Your task to perform on an android device: star an email in the gmail app Image 0: 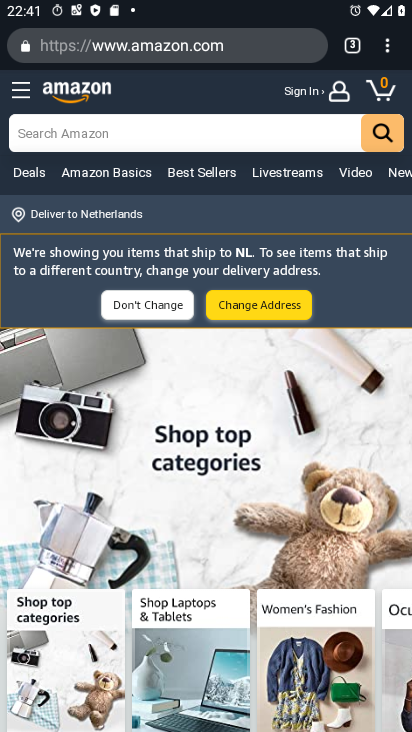
Step 0: press back button
Your task to perform on an android device: star an email in the gmail app Image 1: 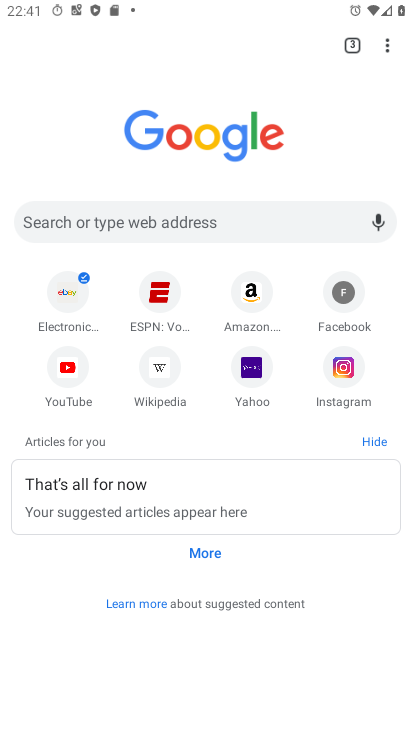
Step 1: press back button
Your task to perform on an android device: star an email in the gmail app Image 2: 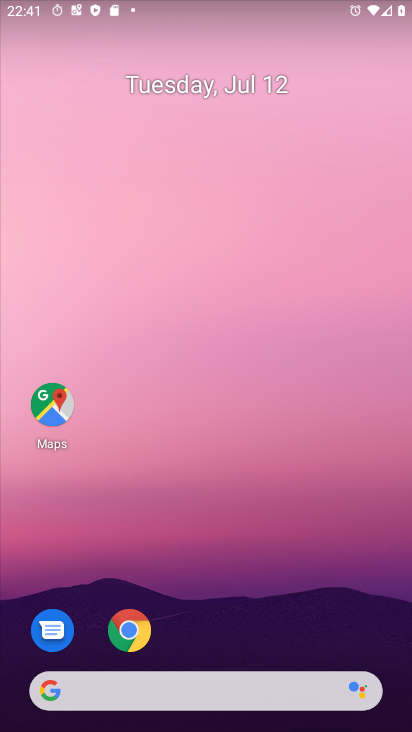
Step 2: drag from (212, 639) to (265, 9)
Your task to perform on an android device: star an email in the gmail app Image 3: 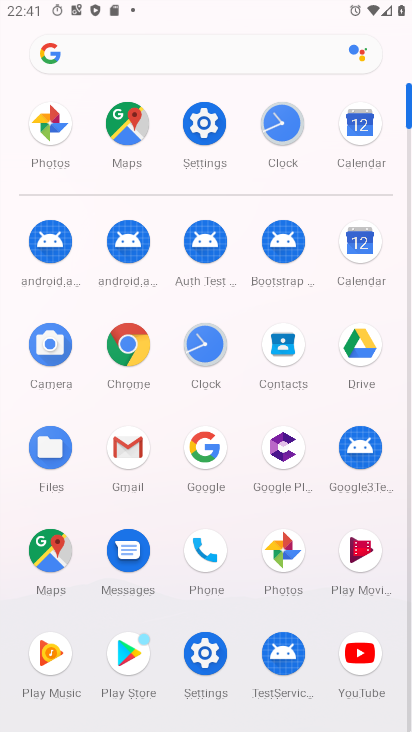
Step 3: click (216, 345)
Your task to perform on an android device: star an email in the gmail app Image 4: 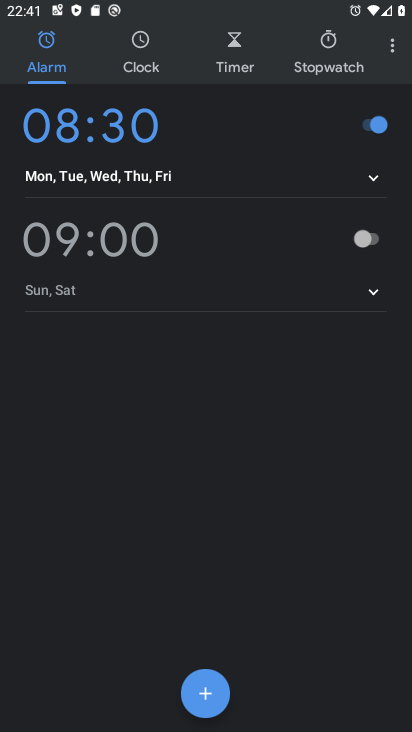
Step 4: press back button
Your task to perform on an android device: star an email in the gmail app Image 5: 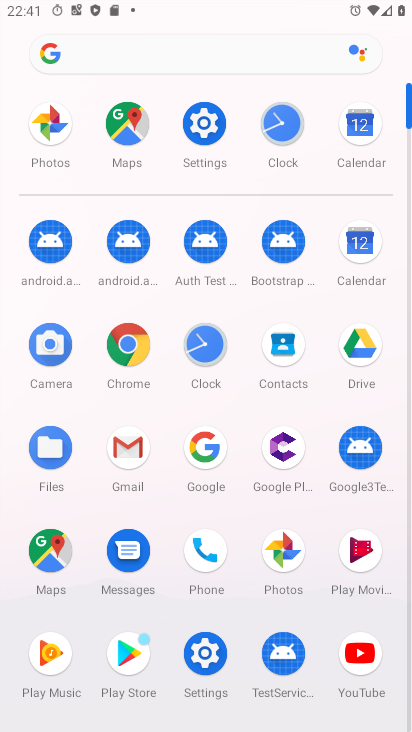
Step 5: click (138, 442)
Your task to perform on an android device: star an email in the gmail app Image 6: 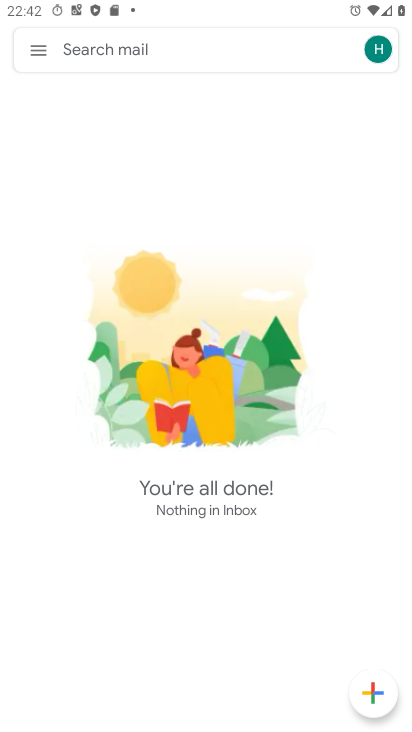
Step 6: click (44, 50)
Your task to perform on an android device: star an email in the gmail app Image 7: 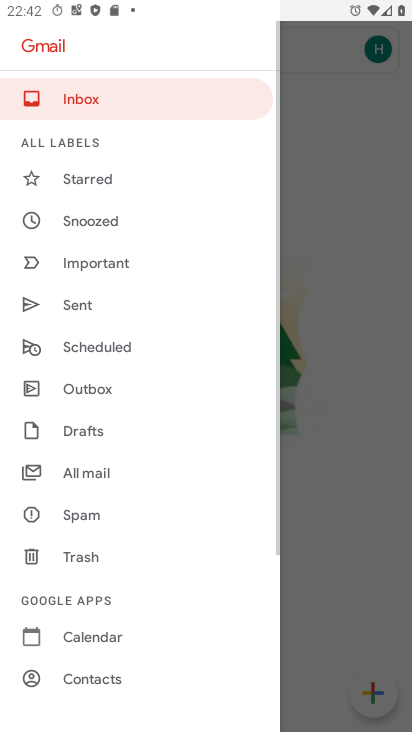
Step 7: click (90, 462)
Your task to perform on an android device: star an email in the gmail app Image 8: 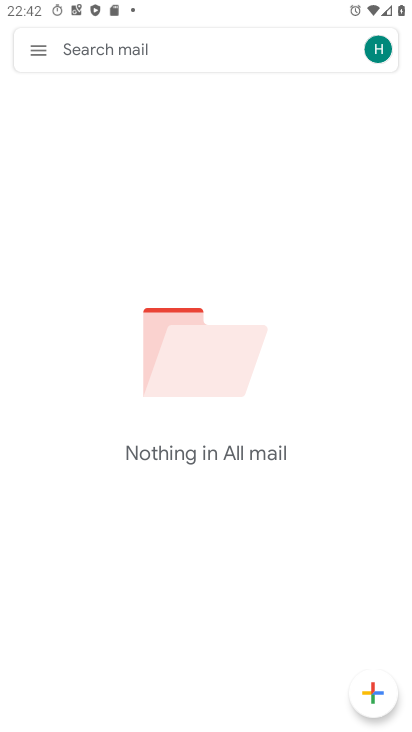
Step 8: task complete